Your task to perform on an android device: make emails show in primary in the gmail app Image 0: 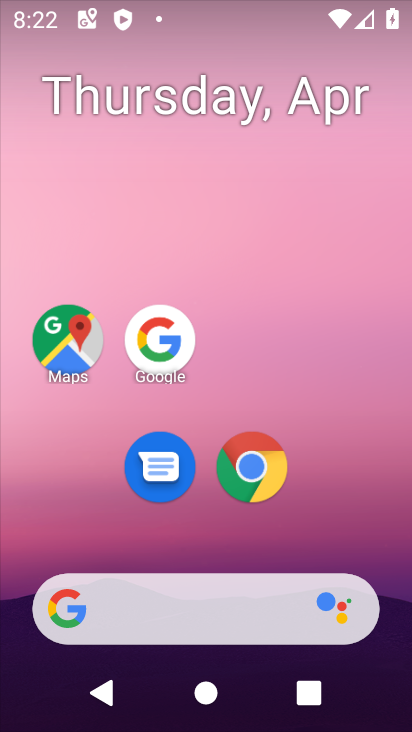
Step 0: drag from (258, 624) to (245, 52)
Your task to perform on an android device: make emails show in primary in the gmail app Image 1: 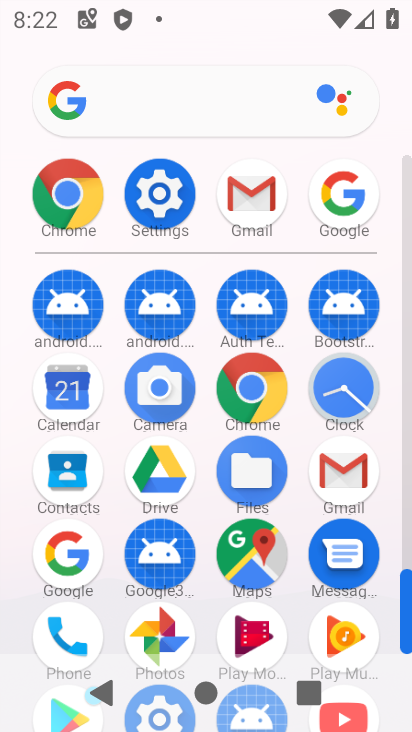
Step 1: click (225, 190)
Your task to perform on an android device: make emails show in primary in the gmail app Image 2: 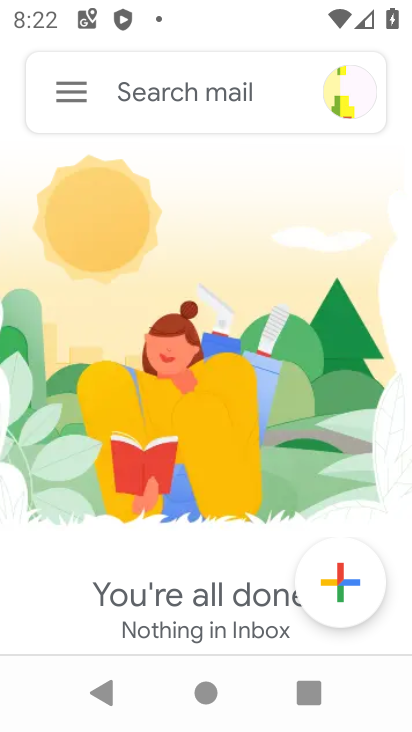
Step 2: click (70, 88)
Your task to perform on an android device: make emails show in primary in the gmail app Image 3: 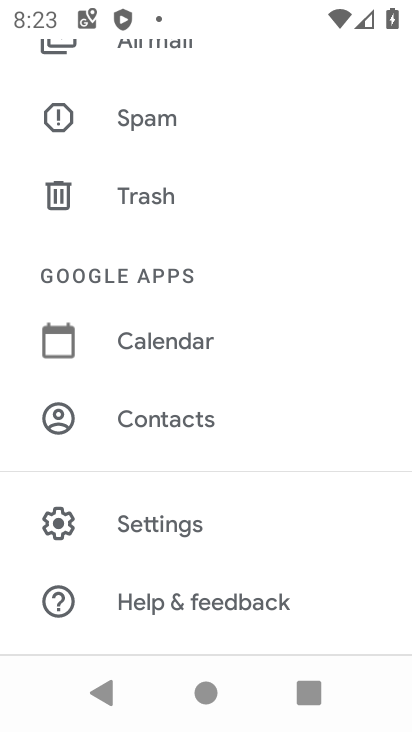
Step 3: click (152, 527)
Your task to perform on an android device: make emails show in primary in the gmail app Image 4: 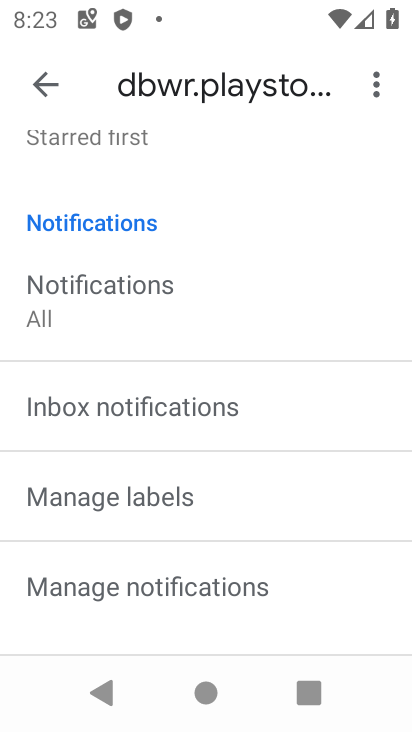
Step 4: drag from (203, 214) to (214, 562)
Your task to perform on an android device: make emails show in primary in the gmail app Image 5: 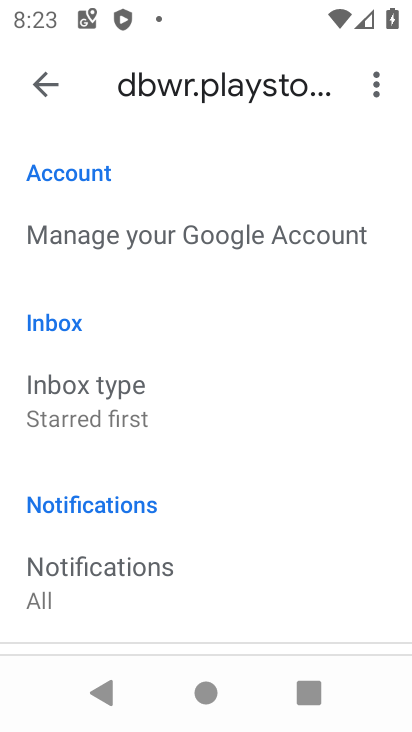
Step 5: click (138, 407)
Your task to perform on an android device: make emails show in primary in the gmail app Image 6: 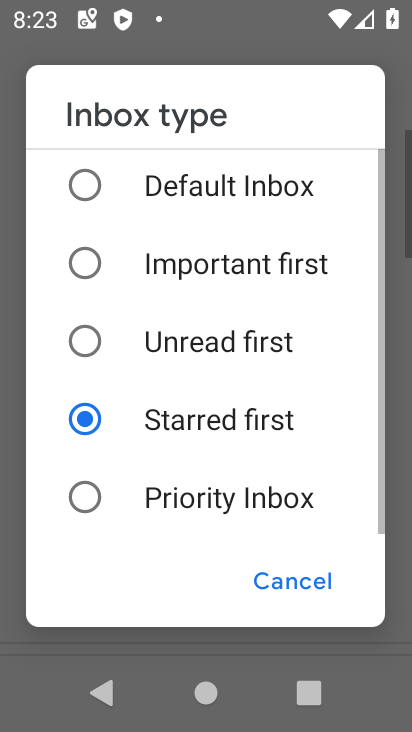
Step 6: click (217, 198)
Your task to perform on an android device: make emails show in primary in the gmail app Image 7: 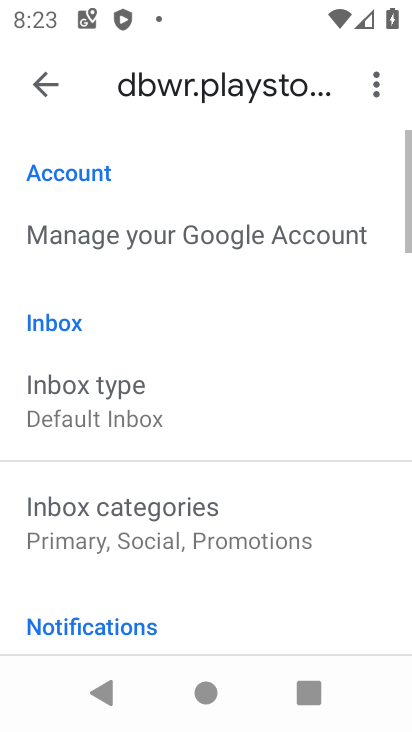
Step 7: click (139, 507)
Your task to perform on an android device: make emails show in primary in the gmail app Image 8: 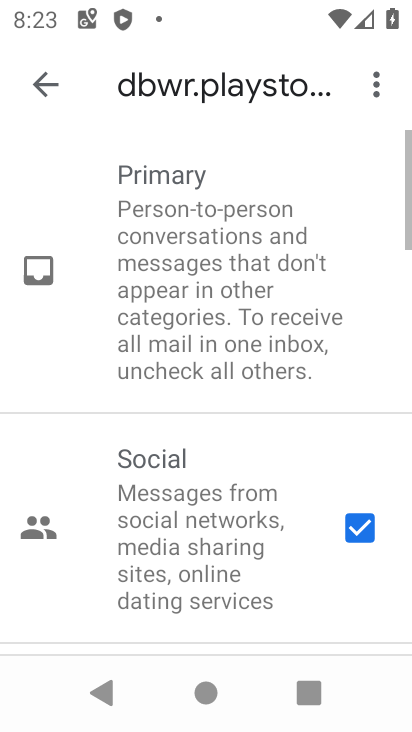
Step 8: click (356, 521)
Your task to perform on an android device: make emails show in primary in the gmail app Image 9: 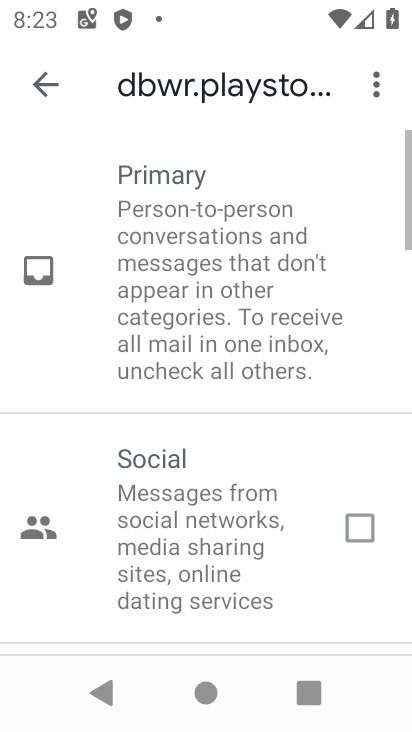
Step 9: drag from (223, 493) to (217, 130)
Your task to perform on an android device: make emails show in primary in the gmail app Image 10: 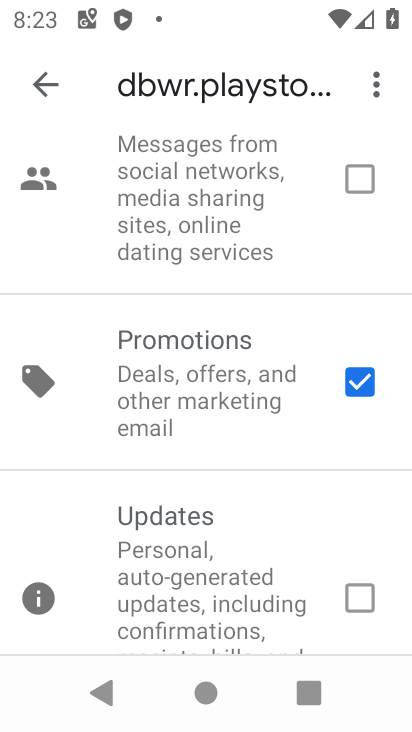
Step 10: click (358, 382)
Your task to perform on an android device: make emails show in primary in the gmail app Image 11: 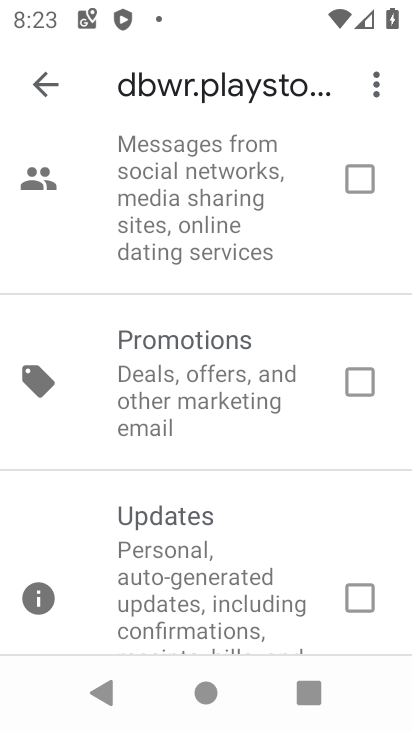
Step 11: task complete